Your task to perform on an android device: See recent photos Image 0: 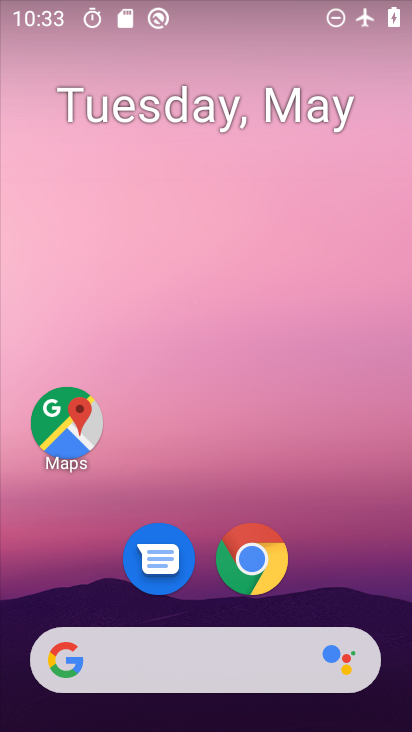
Step 0: drag from (388, 652) to (258, 87)
Your task to perform on an android device: See recent photos Image 1: 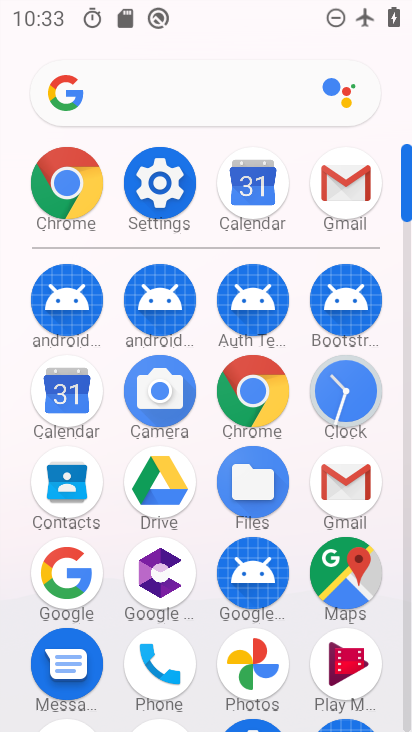
Step 1: click (272, 640)
Your task to perform on an android device: See recent photos Image 2: 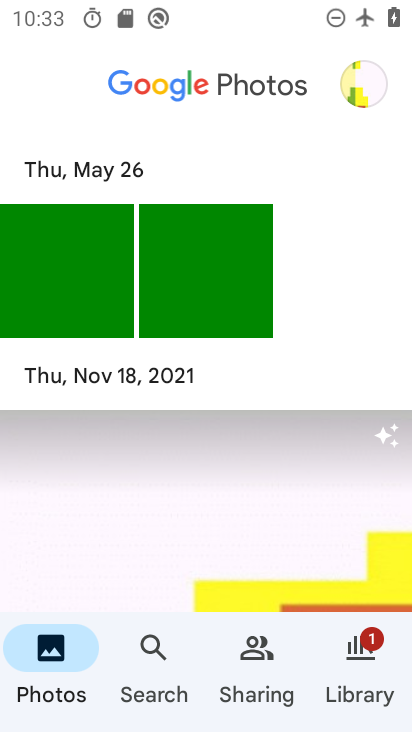
Step 2: click (47, 244)
Your task to perform on an android device: See recent photos Image 3: 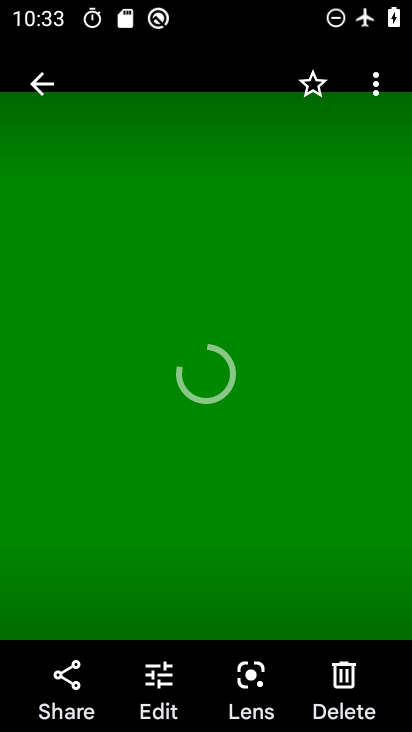
Step 3: task complete